Your task to perform on an android device: toggle javascript in the chrome app Image 0: 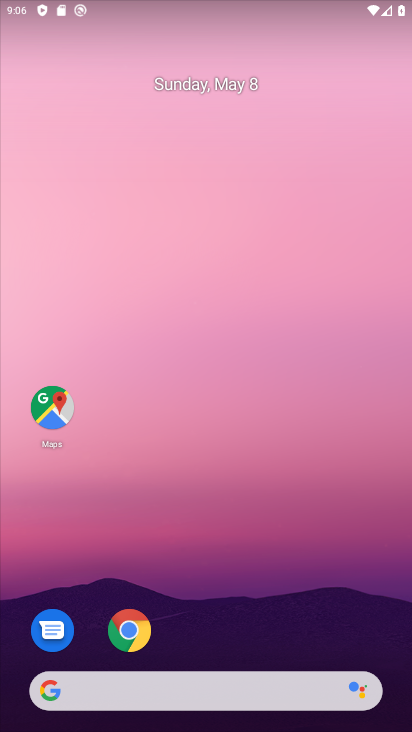
Step 0: click (131, 632)
Your task to perform on an android device: toggle javascript in the chrome app Image 1: 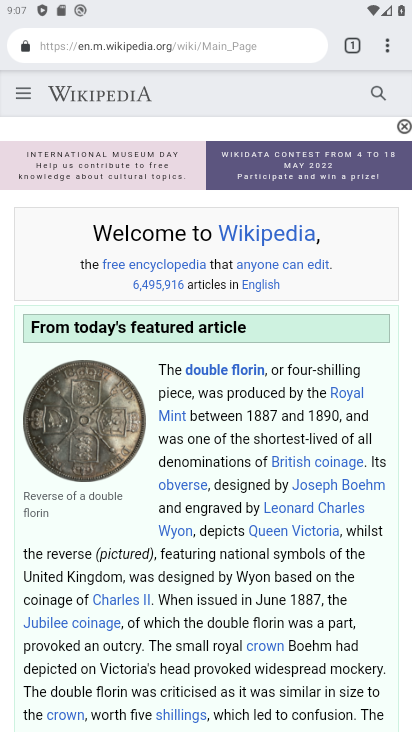
Step 1: drag from (386, 45) to (236, 549)
Your task to perform on an android device: toggle javascript in the chrome app Image 2: 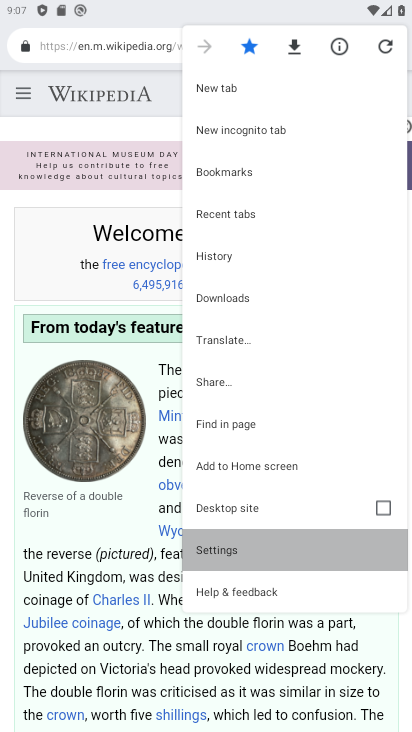
Step 2: click (236, 549)
Your task to perform on an android device: toggle javascript in the chrome app Image 3: 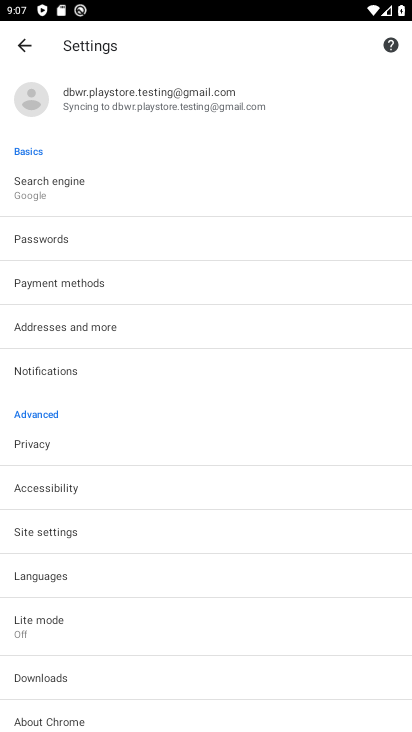
Step 3: click (89, 531)
Your task to perform on an android device: toggle javascript in the chrome app Image 4: 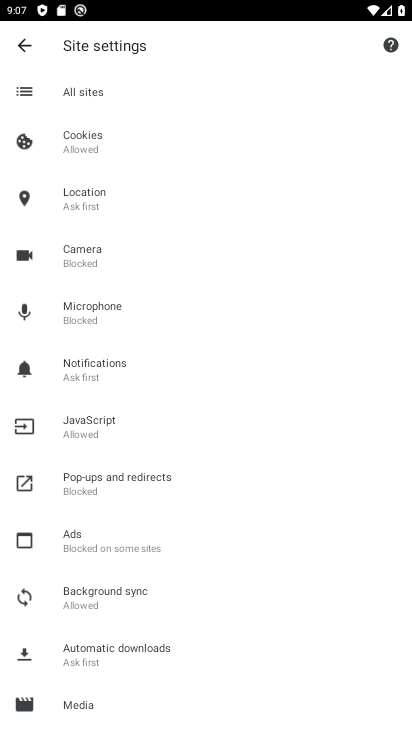
Step 4: click (99, 421)
Your task to perform on an android device: toggle javascript in the chrome app Image 5: 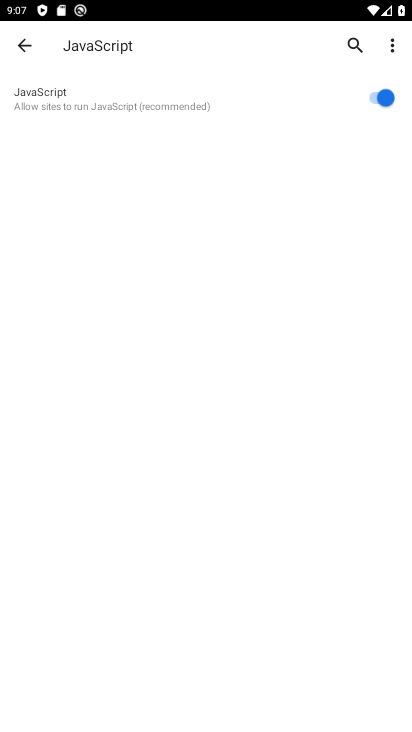
Step 5: click (372, 95)
Your task to perform on an android device: toggle javascript in the chrome app Image 6: 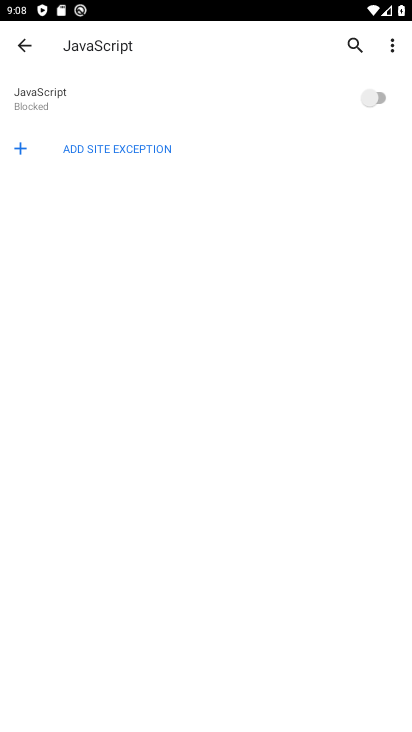
Step 6: task complete